Your task to perform on an android device: turn off data saver in the chrome app Image 0: 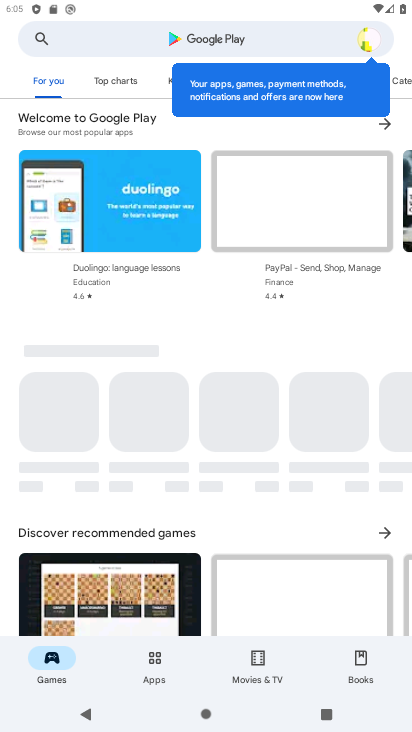
Step 0: press home button
Your task to perform on an android device: turn off data saver in the chrome app Image 1: 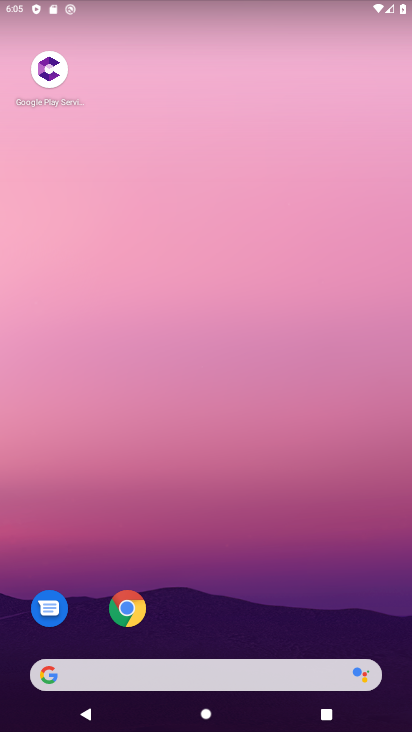
Step 1: click (135, 607)
Your task to perform on an android device: turn off data saver in the chrome app Image 2: 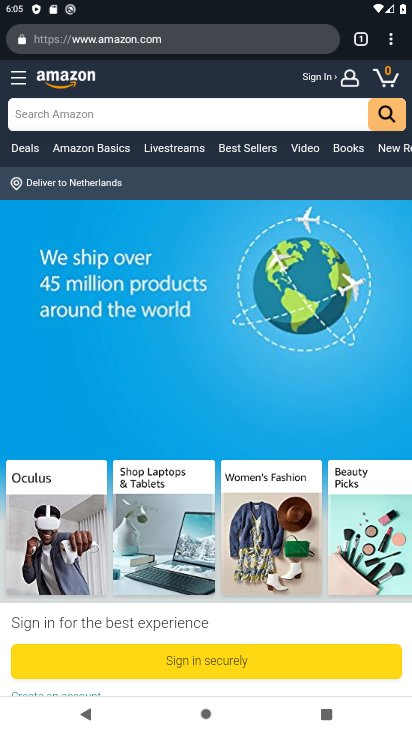
Step 2: click (387, 43)
Your task to perform on an android device: turn off data saver in the chrome app Image 3: 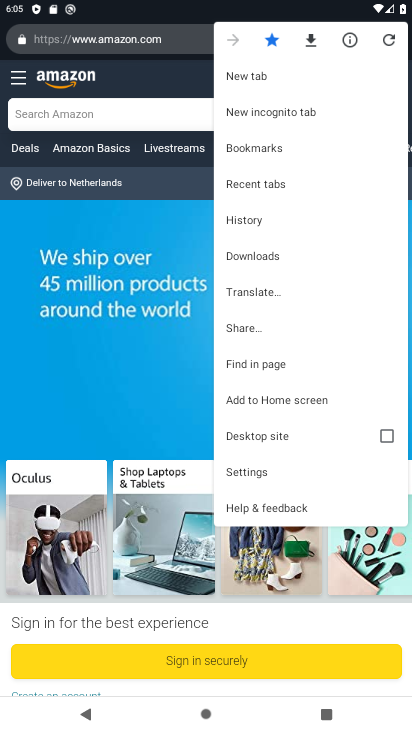
Step 3: click (258, 477)
Your task to perform on an android device: turn off data saver in the chrome app Image 4: 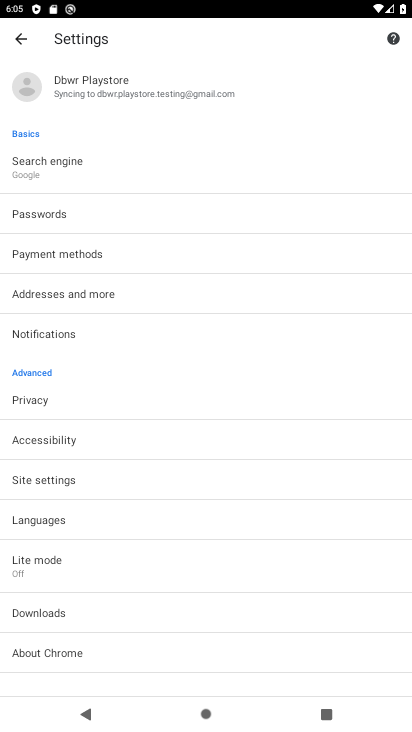
Step 4: click (60, 560)
Your task to perform on an android device: turn off data saver in the chrome app Image 5: 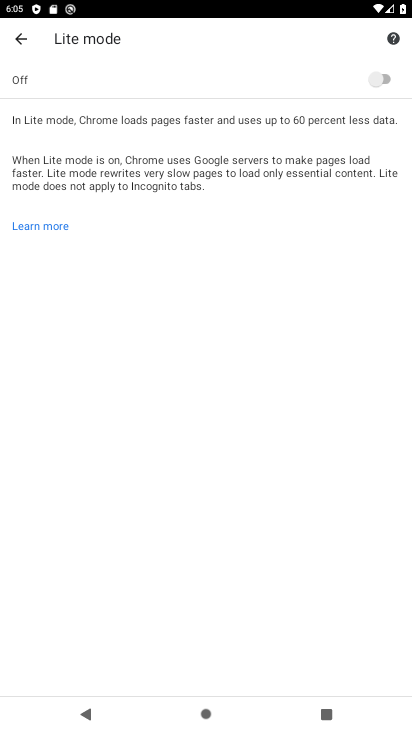
Step 5: task complete